Your task to perform on an android device: turn off javascript in the chrome app Image 0: 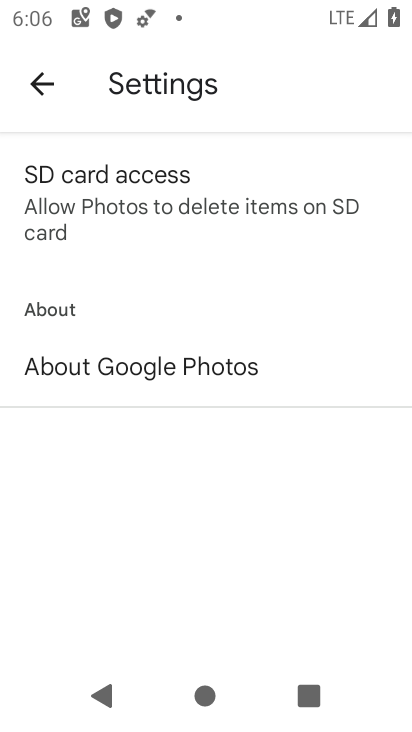
Step 0: press home button
Your task to perform on an android device: turn off javascript in the chrome app Image 1: 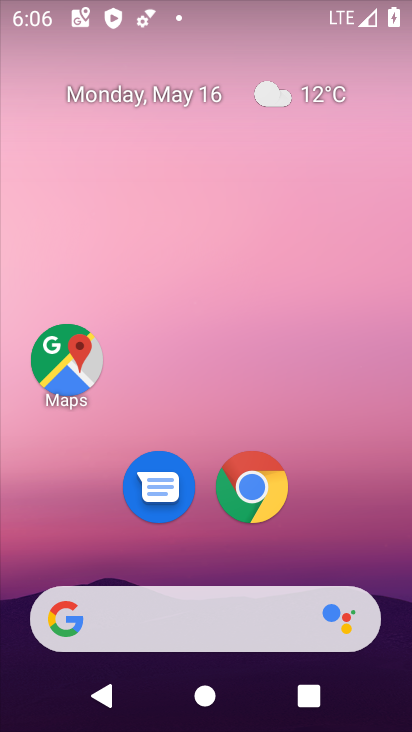
Step 1: click (253, 496)
Your task to perform on an android device: turn off javascript in the chrome app Image 2: 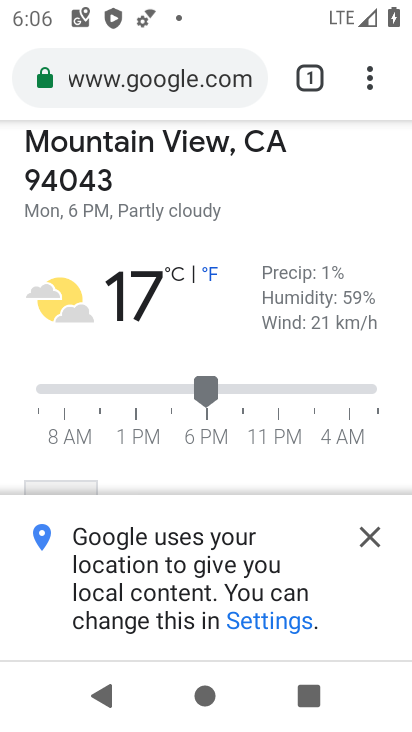
Step 2: drag from (372, 81) to (267, 544)
Your task to perform on an android device: turn off javascript in the chrome app Image 3: 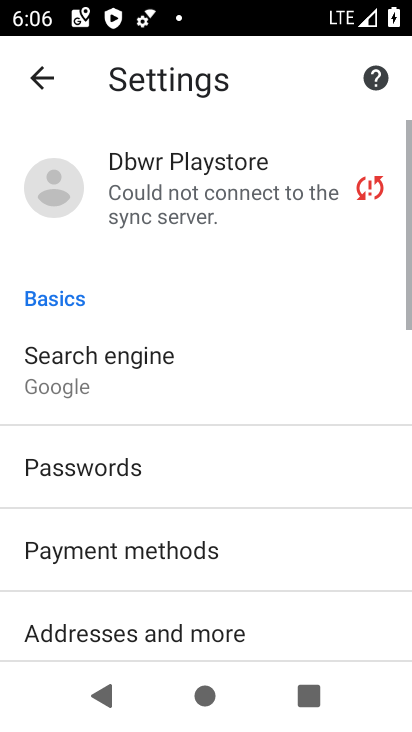
Step 3: drag from (266, 521) to (238, 52)
Your task to perform on an android device: turn off javascript in the chrome app Image 4: 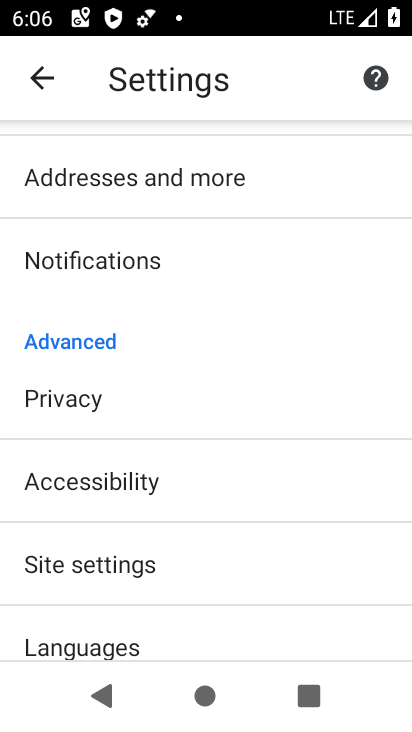
Step 4: drag from (184, 490) to (199, 248)
Your task to perform on an android device: turn off javascript in the chrome app Image 5: 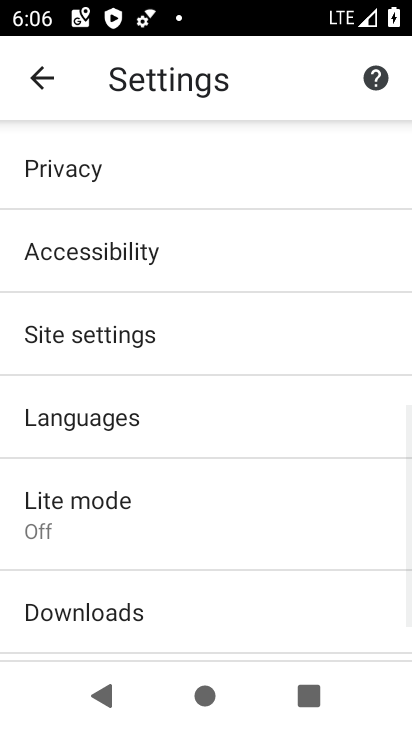
Step 5: click (76, 352)
Your task to perform on an android device: turn off javascript in the chrome app Image 6: 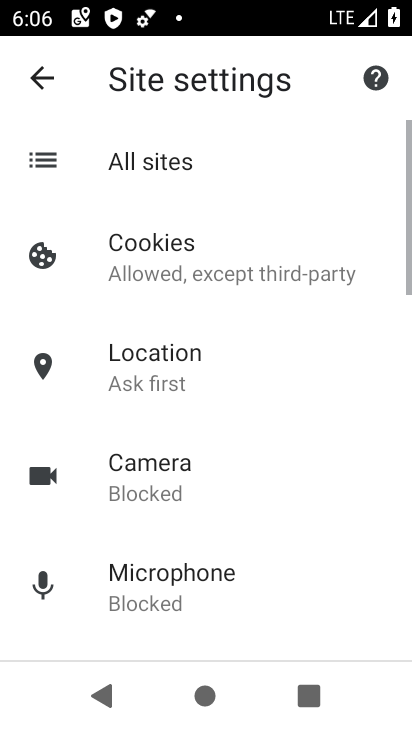
Step 6: drag from (247, 618) to (231, 196)
Your task to perform on an android device: turn off javascript in the chrome app Image 7: 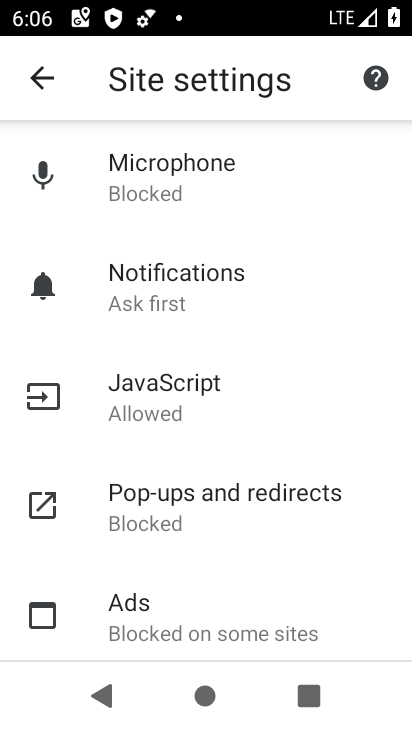
Step 7: click (195, 382)
Your task to perform on an android device: turn off javascript in the chrome app Image 8: 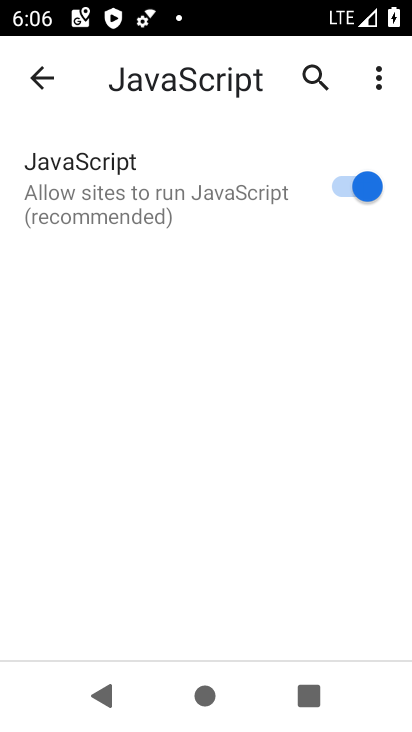
Step 8: click (364, 179)
Your task to perform on an android device: turn off javascript in the chrome app Image 9: 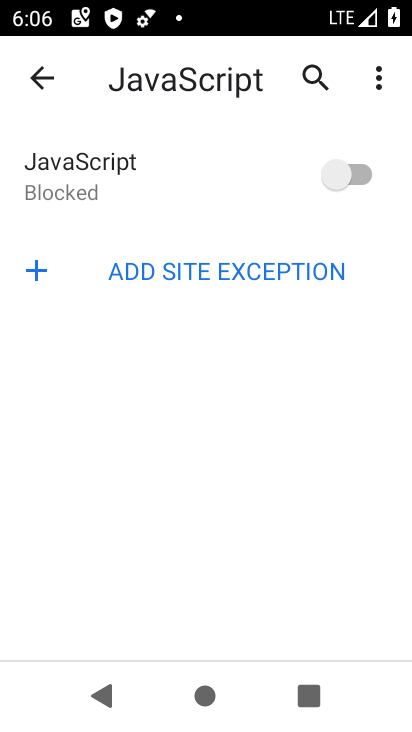
Step 9: task complete